Your task to perform on an android device: Show me popular games on the Play Store Image 0: 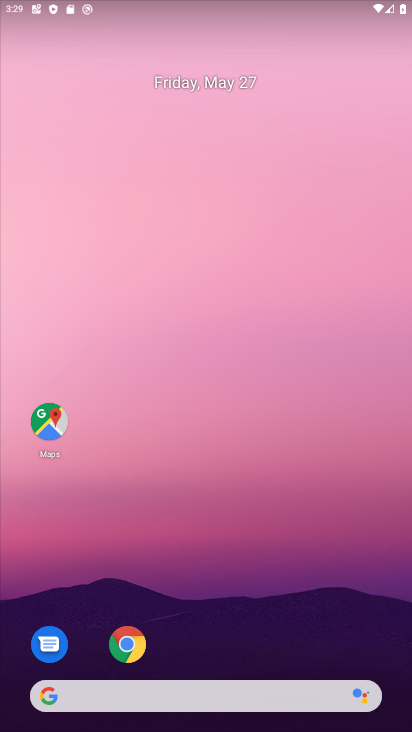
Step 0: drag from (297, 567) to (182, 9)
Your task to perform on an android device: Show me popular games on the Play Store Image 1: 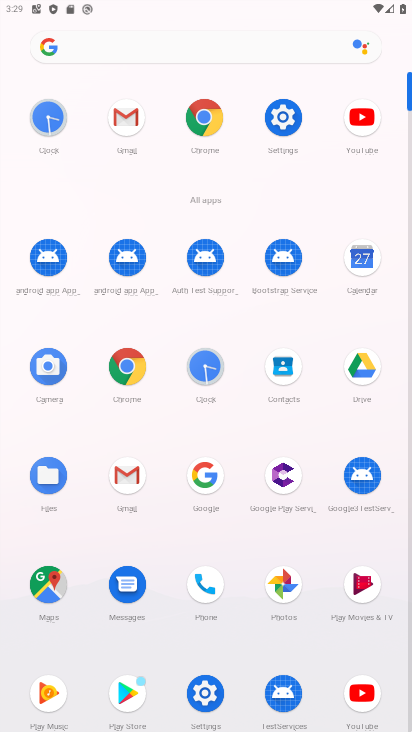
Step 1: click (135, 691)
Your task to perform on an android device: Show me popular games on the Play Store Image 2: 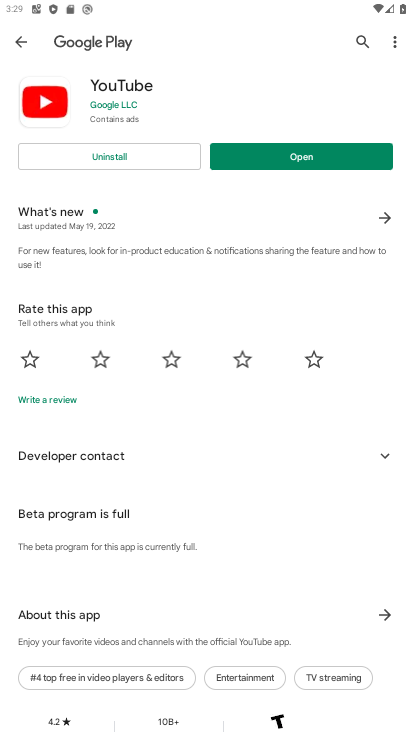
Step 2: click (22, 35)
Your task to perform on an android device: Show me popular games on the Play Store Image 3: 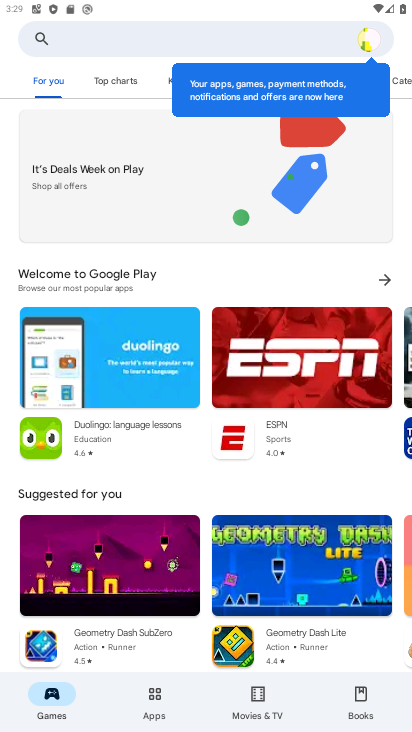
Step 3: click (96, 68)
Your task to perform on an android device: Show me popular games on the Play Store Image 4: 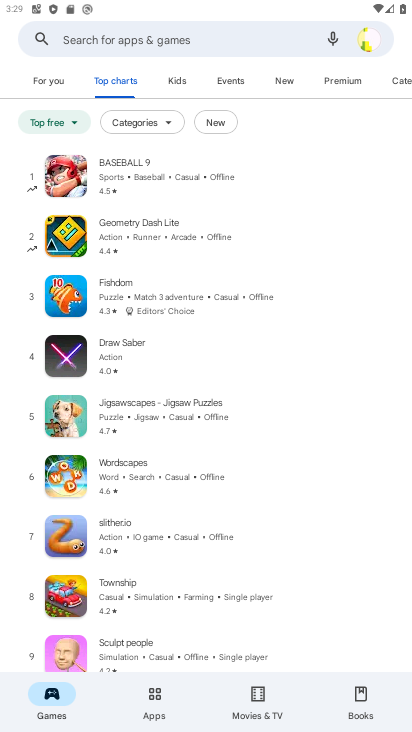
Step 4: task complete